Your task to perform on an android device: turn on javascript in the chrome app Image 0: 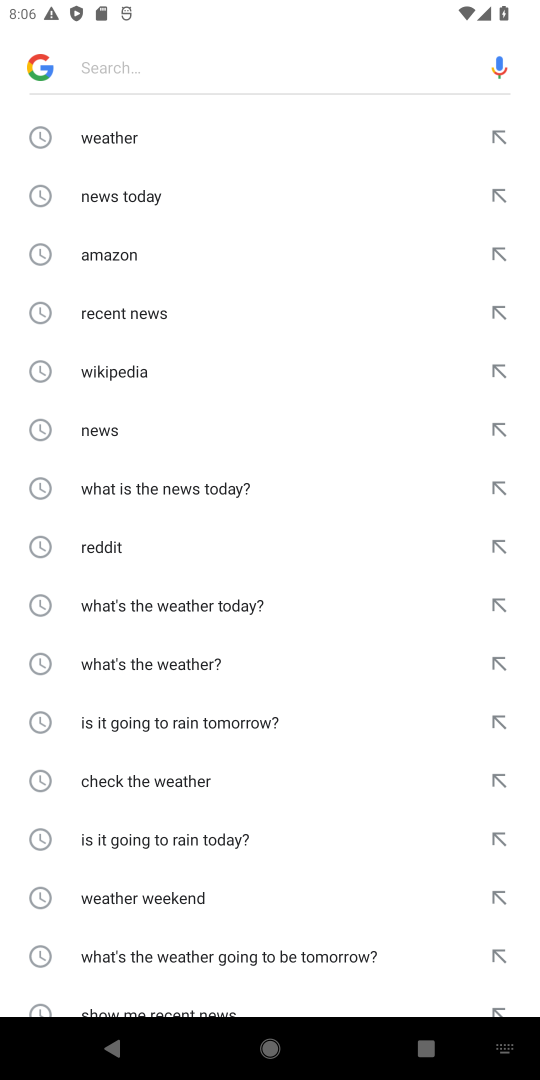
Step 0: press home button
Your task to perform on an android device: turn on javascript in the chrome app Image 1: 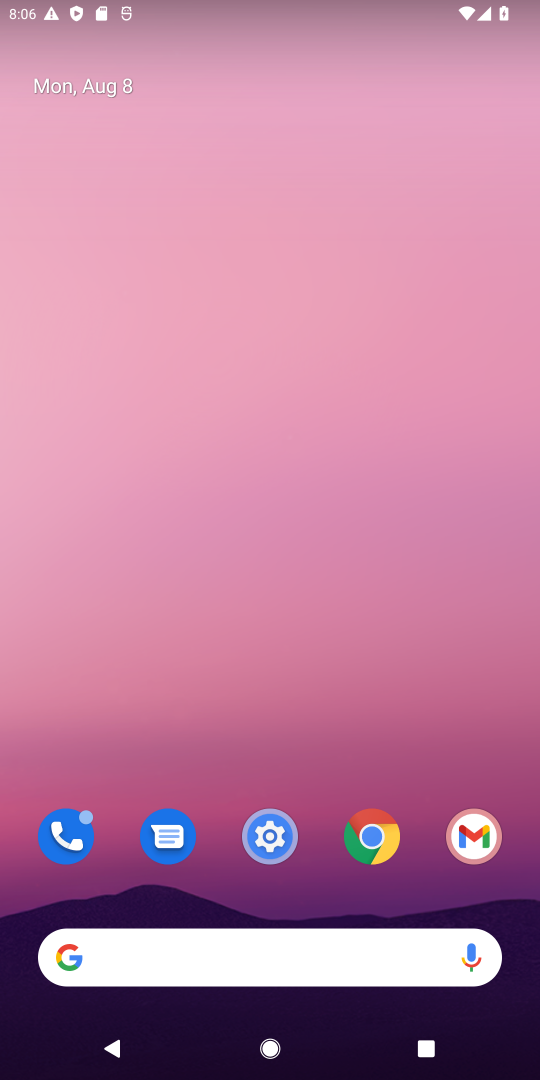
Step 1: click (374, 825)
Your task to perform on an android device: turn on javascript in the chrome app Image 2: 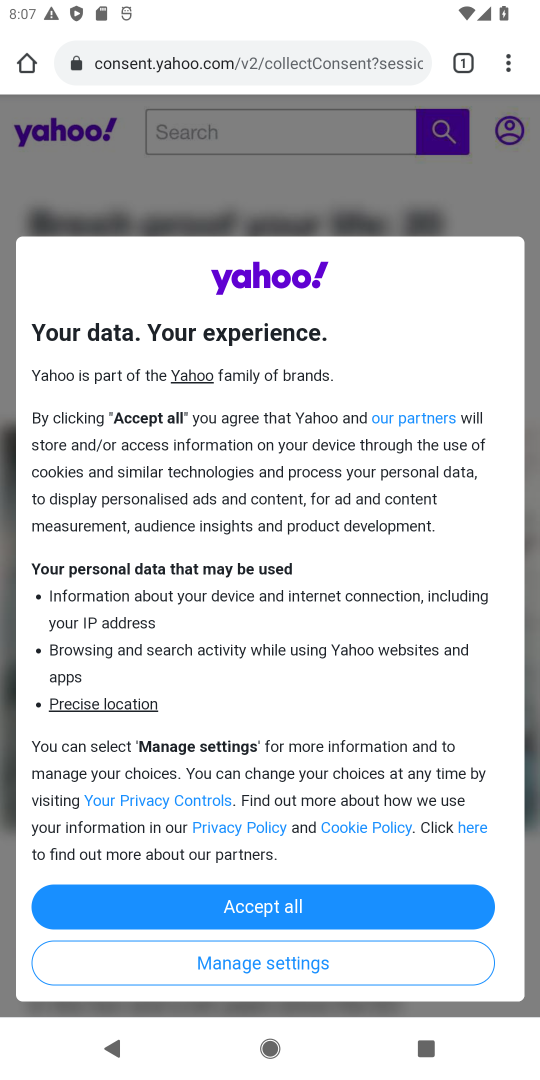
Step 2: click (503, 47)
Your task to perform on an android device: turn on javascript in the chrome app Image 3: 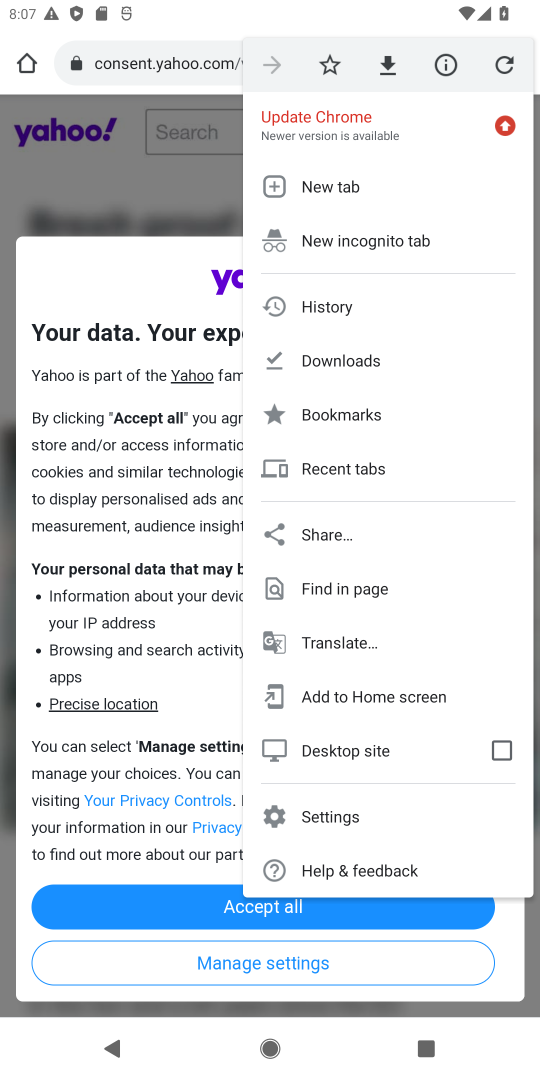
Step 3: click (383, 820)
Your task to perform on an android device: turn on javascript in the chrome app Image 4: 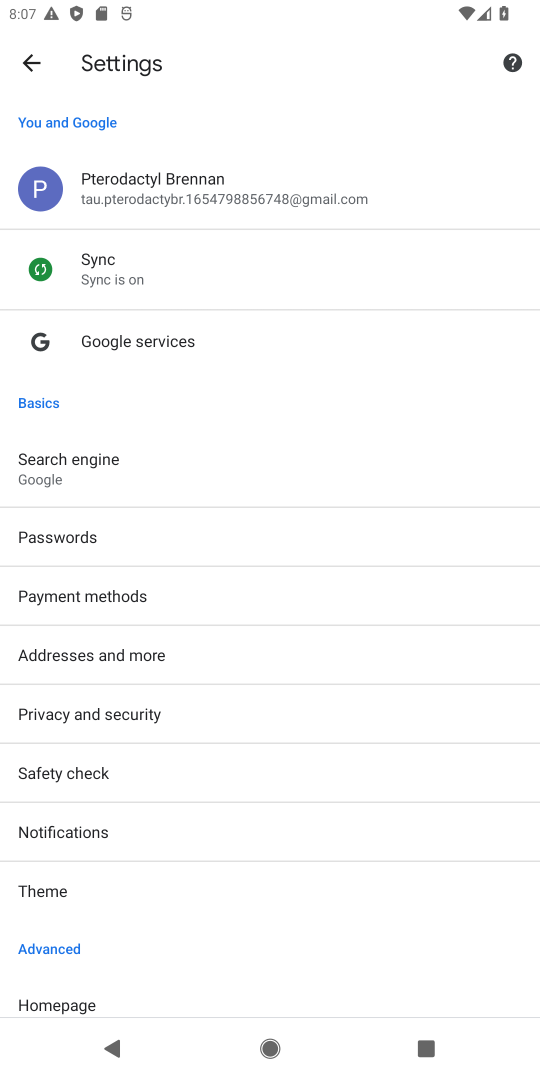
Step 4: drag from (238, 986) to (201, 358)
Your task to perform on an android device: turn on javascript in the chrome app Image 5: 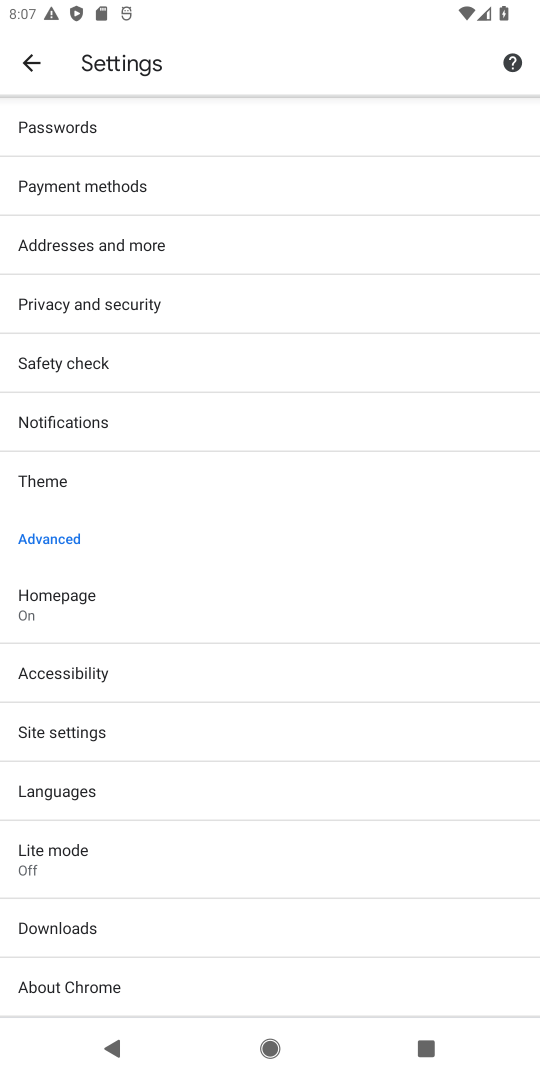
Step 5: click (153, 746)
Your task to perform on an android device: turn on javascript in the chrome app Image 6: 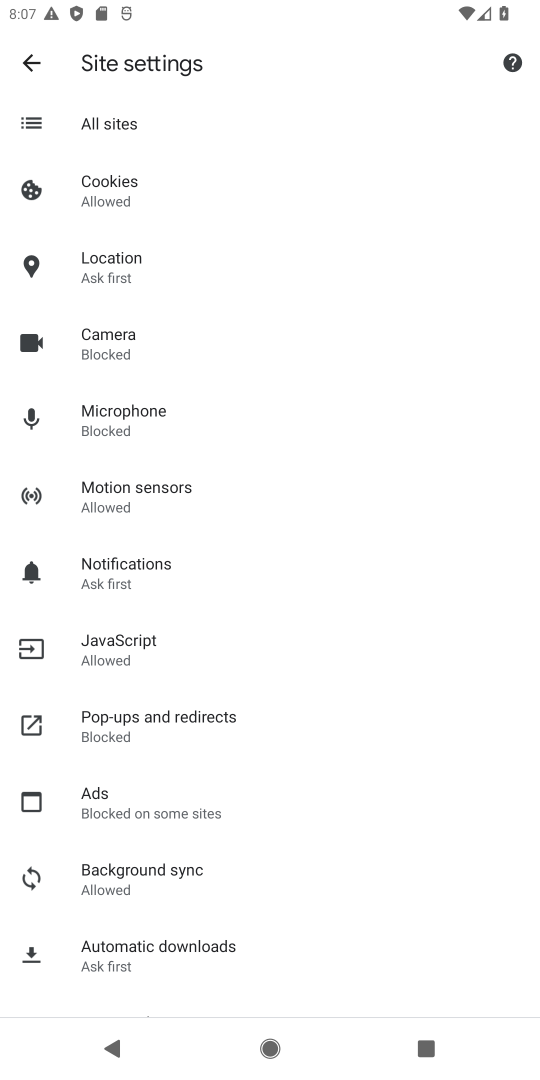
Step 6: click (167, 647)
Your task to perform on an android device: turn on javascript in the chrome app Image 7: 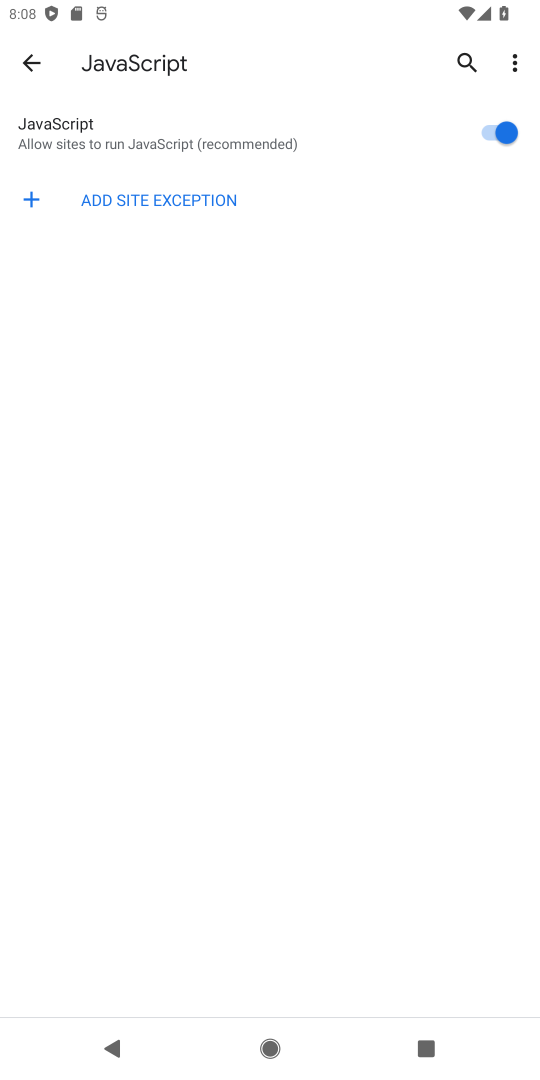
Step 7: task complete